Your task to perform on an android device: Check the weather Image 0: 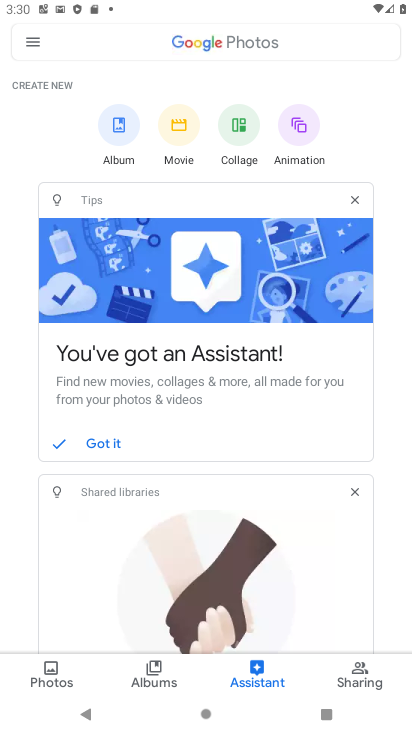
Step 0: press home button
Your task to perform on an android device: Check the weather Image 1: 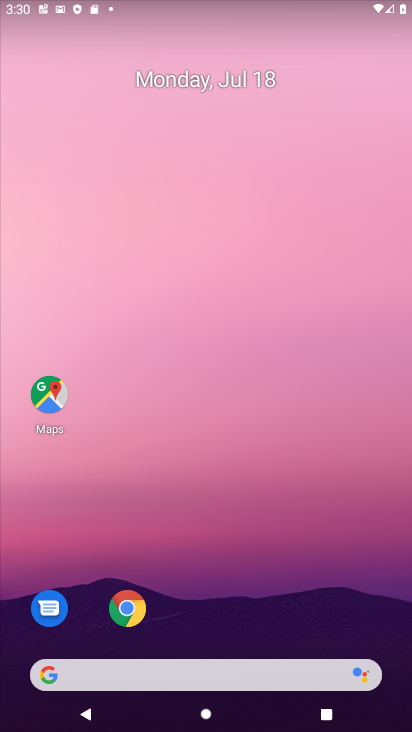
Step 1: drag from (231, 663) to (189, 323)
Your task to perform on an android device: Check the weather Image 2: 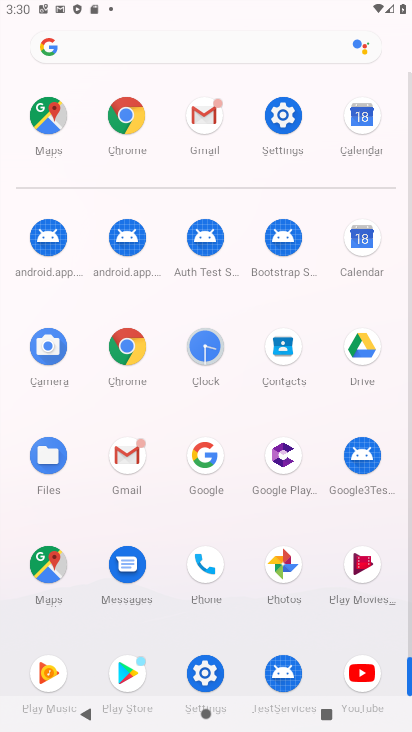
Step 2: click (198, 465)
Your task to perform on an android device: Check the weather Image 3: 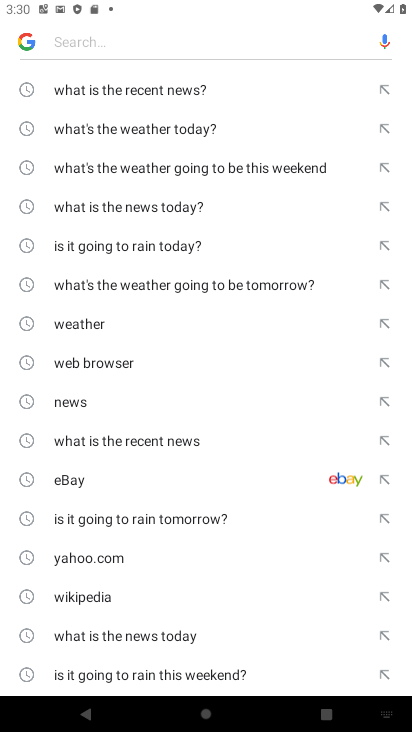
Step 3: click (125, 331)
Your task to perform on an android device: Check the weather Image 4: 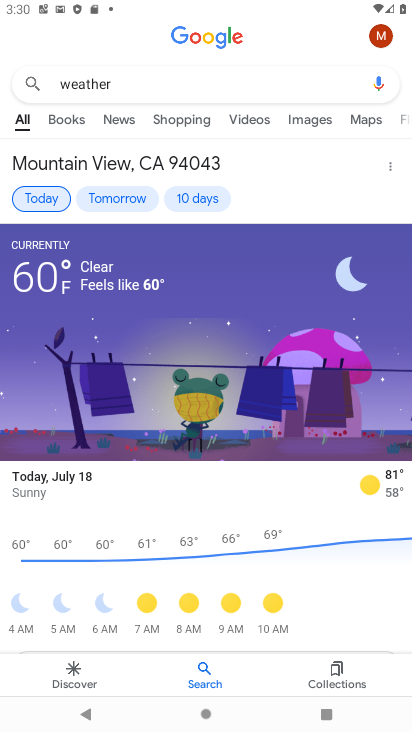
Step 4: click (162, 490)
Your task to perform on an android device: Check the weather Image 5: 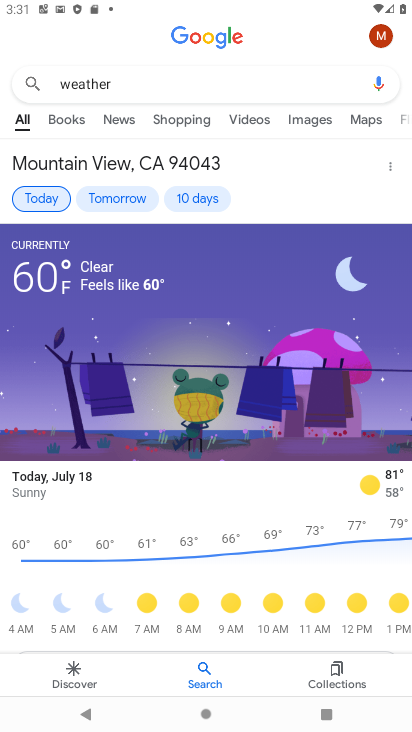
Step 5: task complete